Your task to perform on an android device: move a message to another label in the gmail app Image 0: 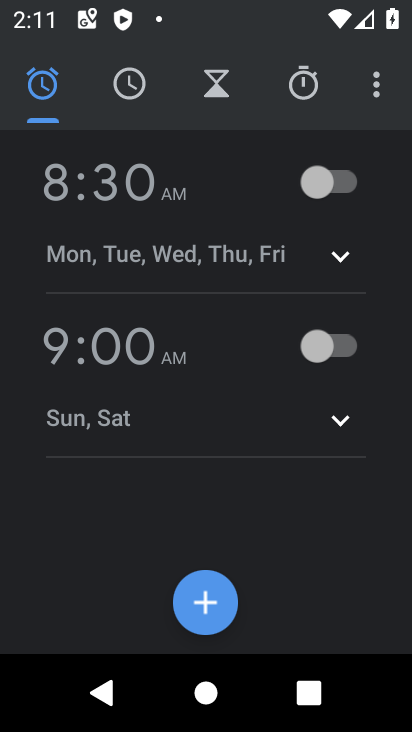
Step 0: press home button
Your task to perform on an android device: move a message to another label in the gmail app Image 1: 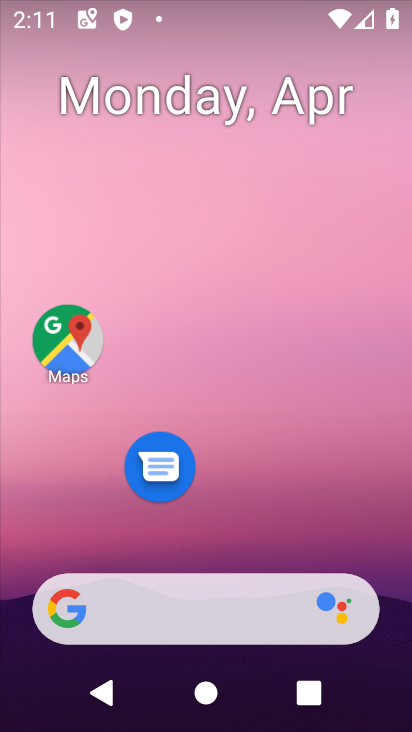
Step 1: drag from (271, 553) to (298, 86)
Your task to perform on an android device: move a message to another label in the gmail app Image 2: 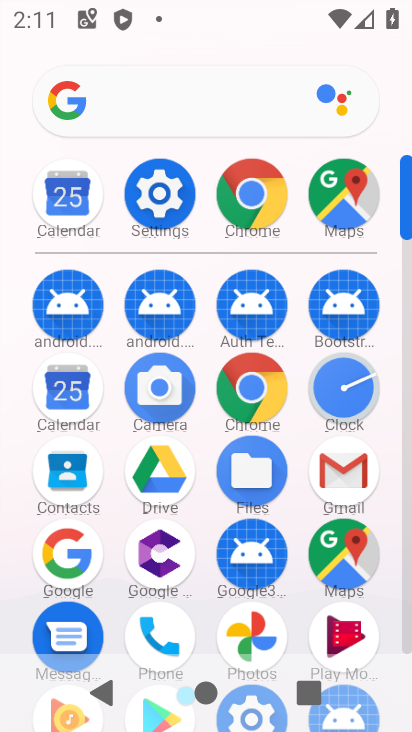
Step 2: click (325, 486)
Your task to perform on an android device: move a message to another label in the gmail app Image 3: 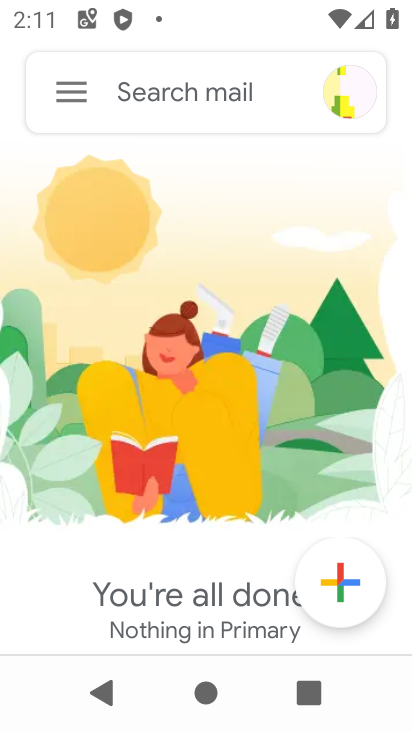
Step 3: click (67, 66)
Your task to perform on an android device: move a message to another label in the gmail app Image 4: 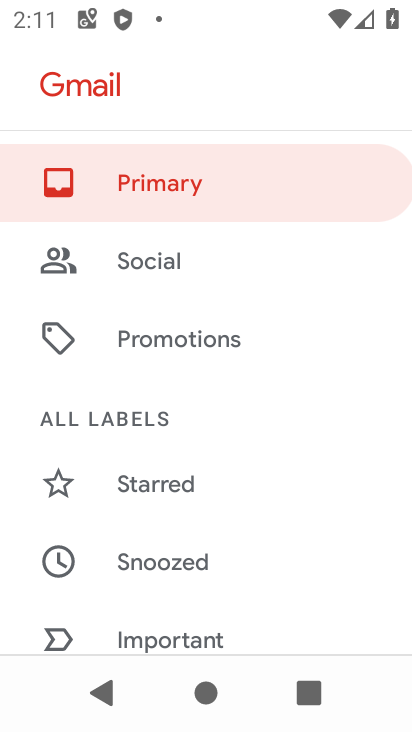
Step 4: drag from (153, 622) to (167, 236)
Your task to perform on an android device: move a message to another label in the gmail app Image 5: 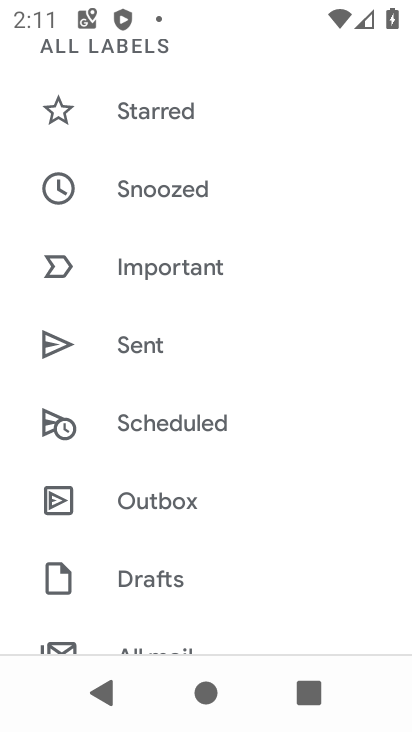
Step 5: drag from (153, 536) to (188, 162)
Your task to perform on an android device: move a message to another label in the gmail app Image 6: 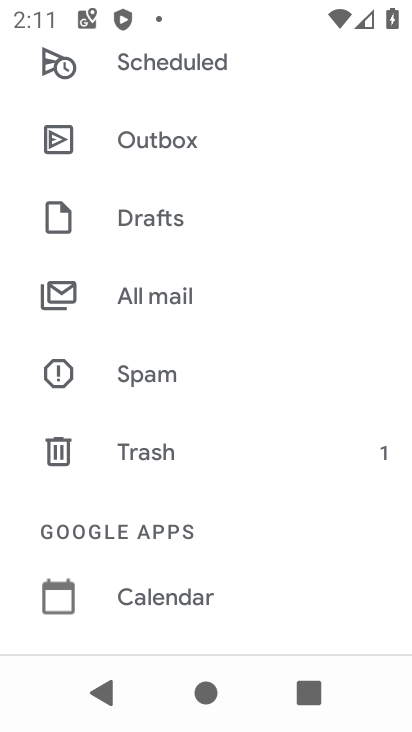
Step 6: click (182, 290)
Your task to perform on an android device: move a message to another label in the gmail app Image 7: 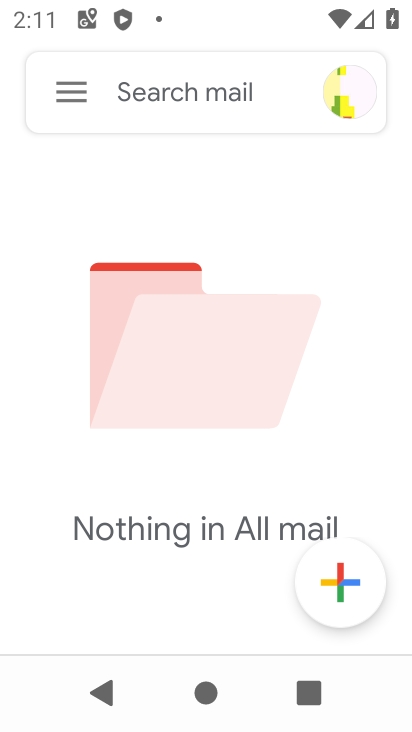
Step 7: task complete